Your task to perform on an android device: Open Yahoo.com Image 0: 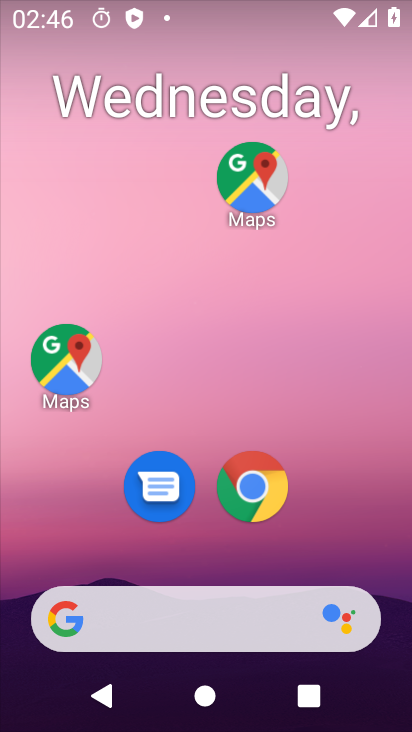
Step 0: drag from (223, 580) to (240, 35)
Your task to perform on an android device: Open Yahoo.com Image 1: 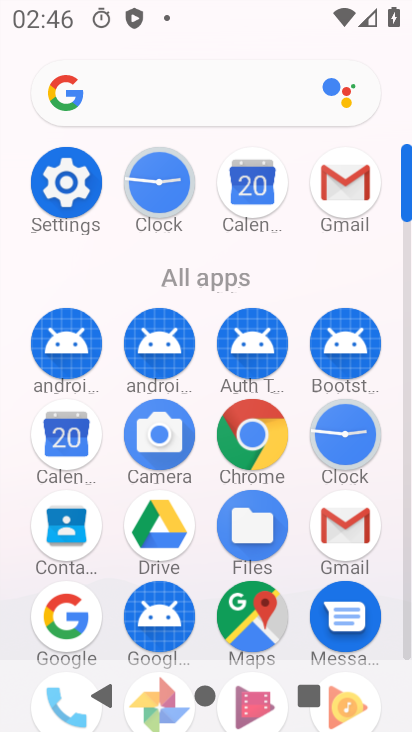
Step 1: click (255, 433)
Your task to perform on an android device: Open Yahoo.com Image 2: 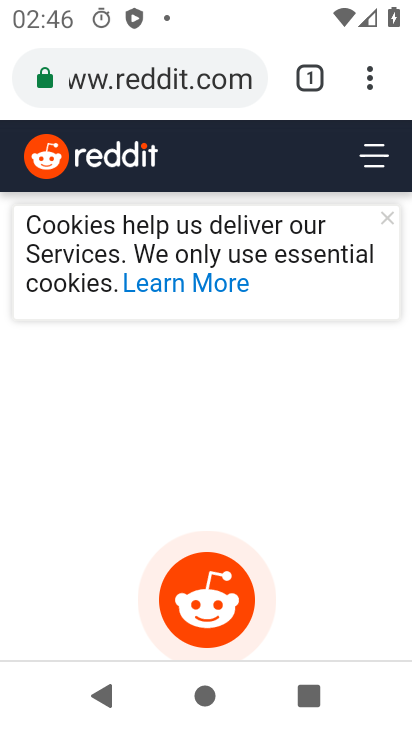
Step 2: click (306, 77)
Your task to perform on an android device: Open Yahoo.com Image 3: 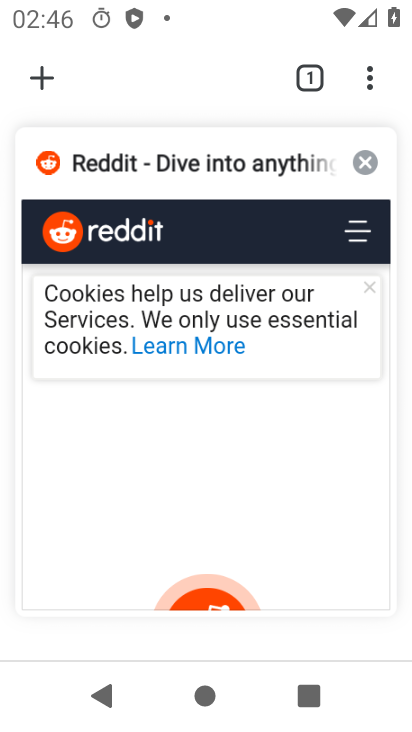
Step 3: click (30, 73)
Your task to perform on an android device: Open Yahoo.com Image 4: 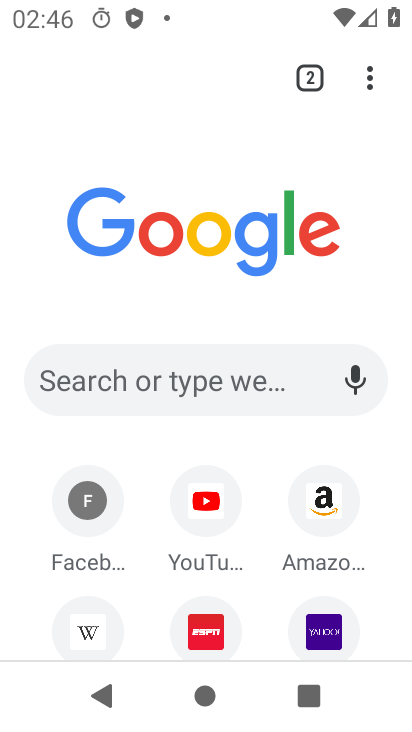
Step 4: click (327, 633)
Your task to perform on an android device: Open Yahoo.com Image 5: 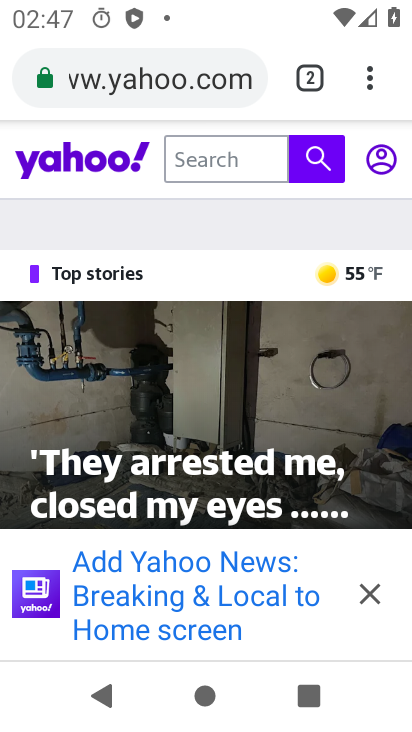
Step 5: task complete